Your task to perform on an android device: Go to display settings Image 0: 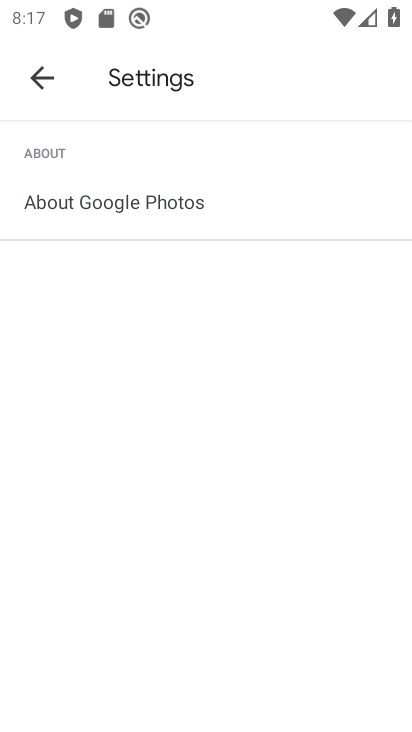
Step 0: click (35, 78)
Your task to perform on an android device: Go to display settings Image 1: 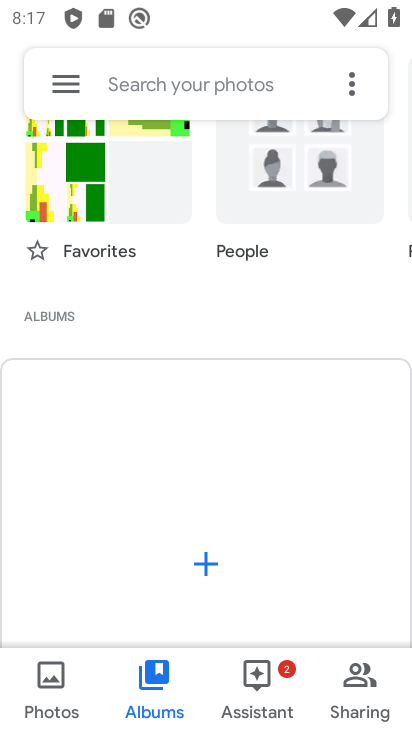
Step 1: press back button
Your task to perform on an android device: Go to display settings Image 2: 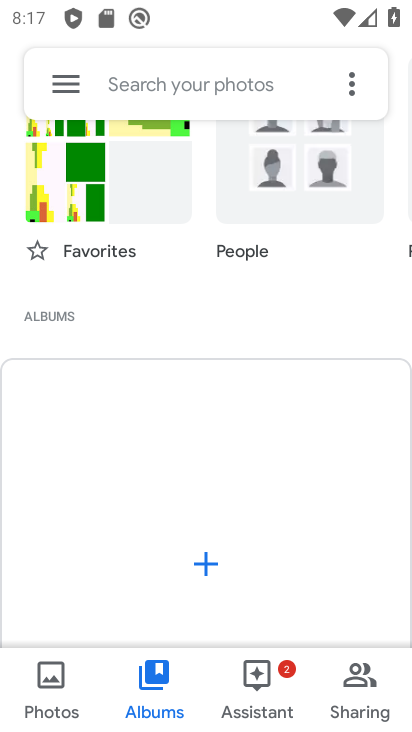
Step 2: press back button
Your task to perform on an android device: Go to display settings Image 3: 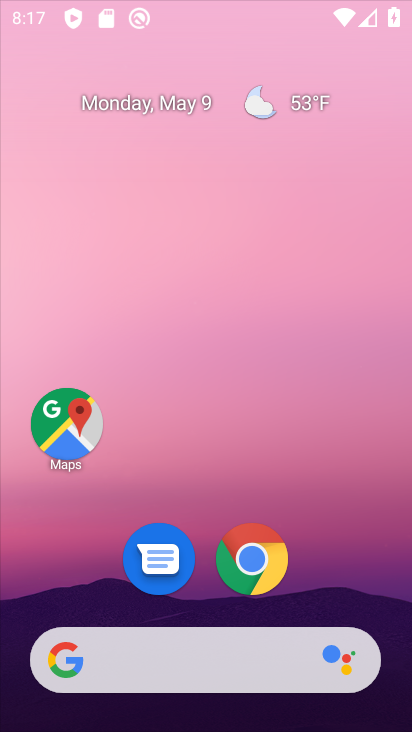
Step 3: press back button
Your task to perform on an android device: Go to display settings Image 4: 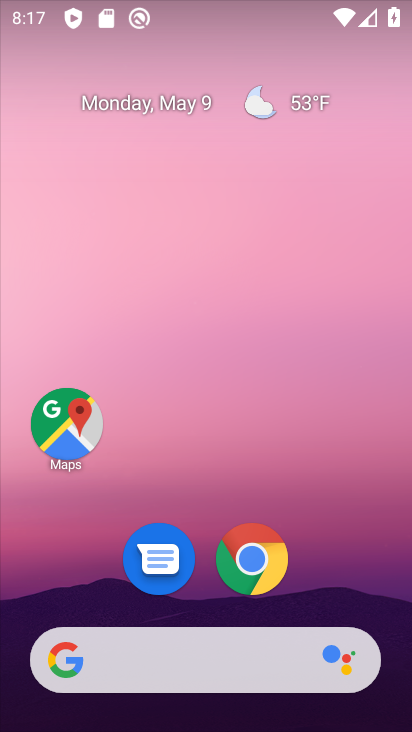
Step 4: drag from (330, 548) to (236, 27)
Your task to perform on an android device: Go to display settings Image 5: 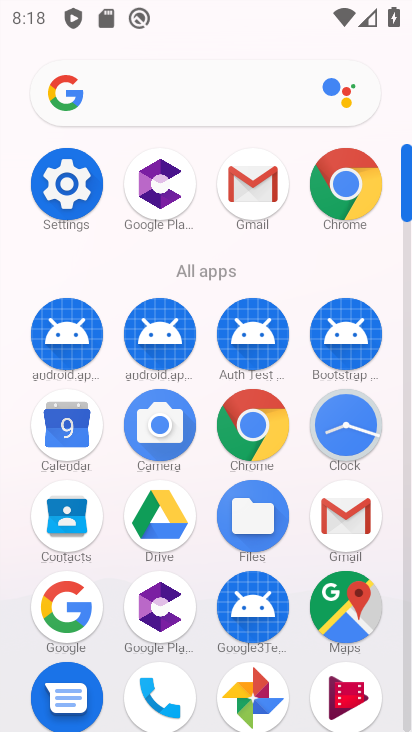
Step 5: click (65, 174)
Your task to perform on an android device: Go to display settings Image 6: 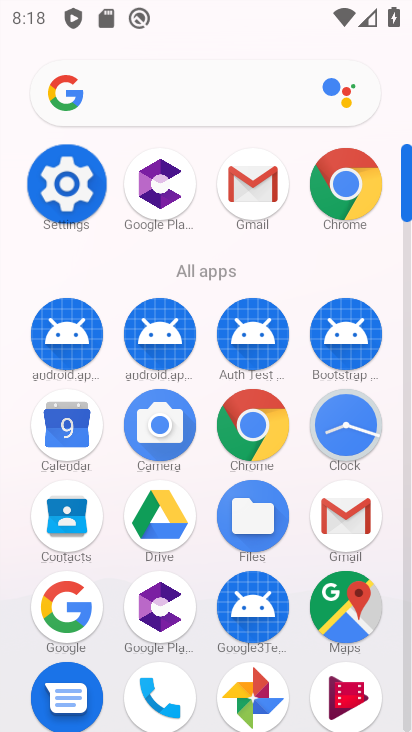
Step 6: click (66, 176)
Your task to perform on an android device: Go to display settings Image 7: 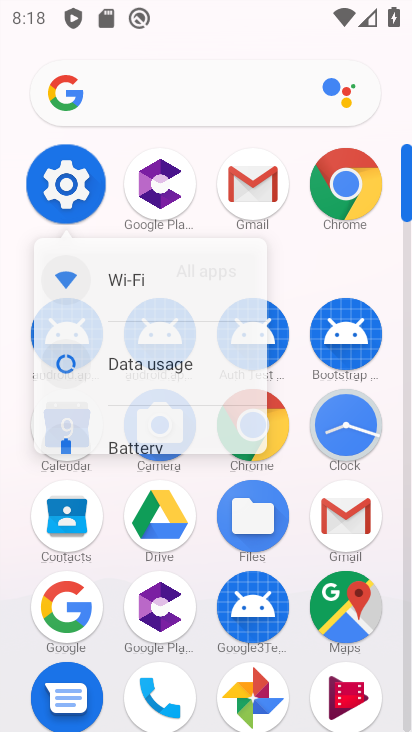
Step 7: click (66, 176)
Your task to perform on an android device: Go to display settings Image 8: 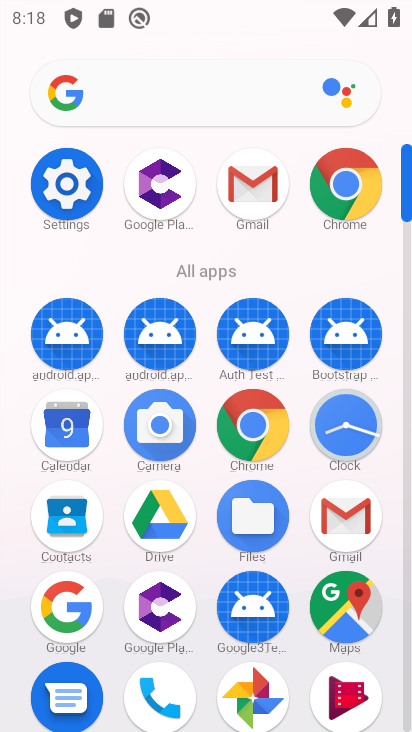
Step 8: click (66, 176)
Your task to perform on an android device: Go to display settings Image 9: 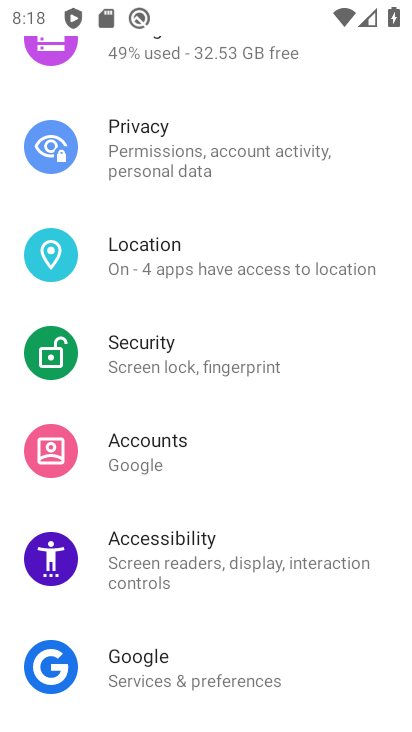
Step 9: drag from (127, 248) to (252, 582)
Your task to perform on an android device: Go to display settings Image 10: 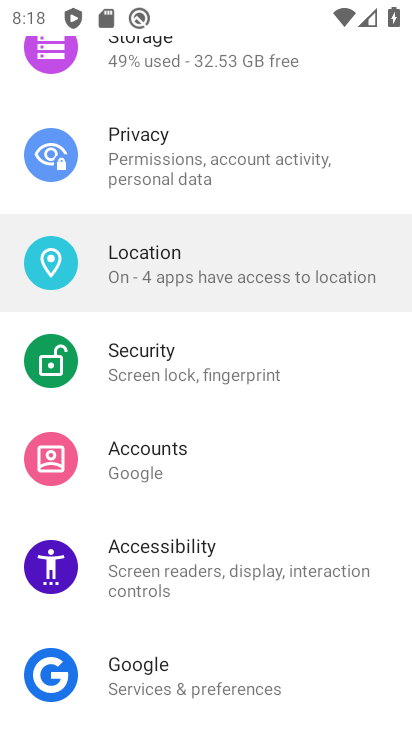
Step 10: drag from (197, 199) to (298, 463)
Your task to perform on an android device: Go to display settings Image 11: 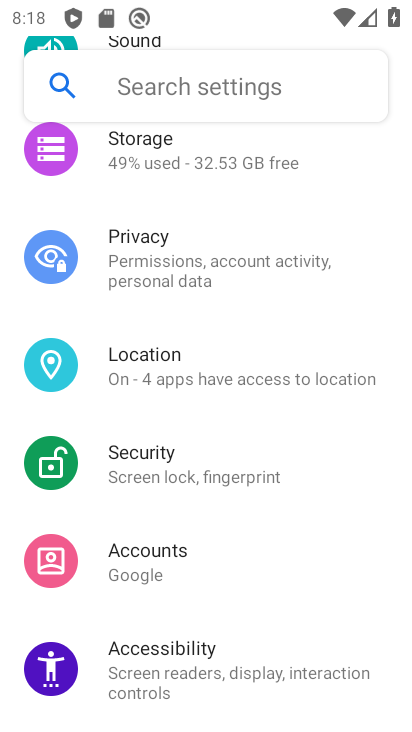
Step 11: drag from (261, 218) to (309, 498)
Your task to perform on an android device: Go to display settings Image 12: 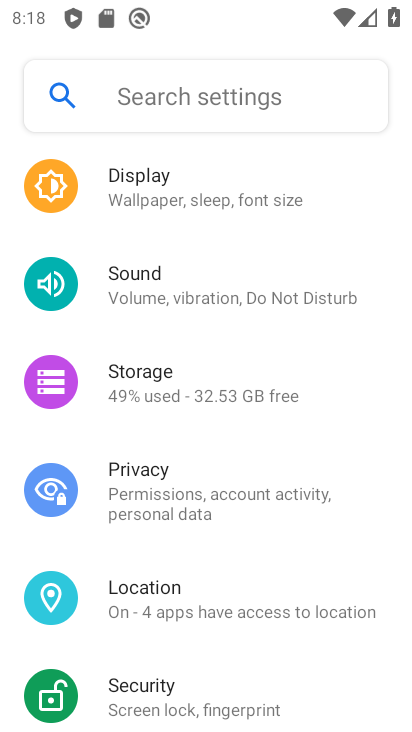
Step 12: drag from (202, 204) to (259, 563)
Your task to perform on an android device: Go to display settings Image 13: 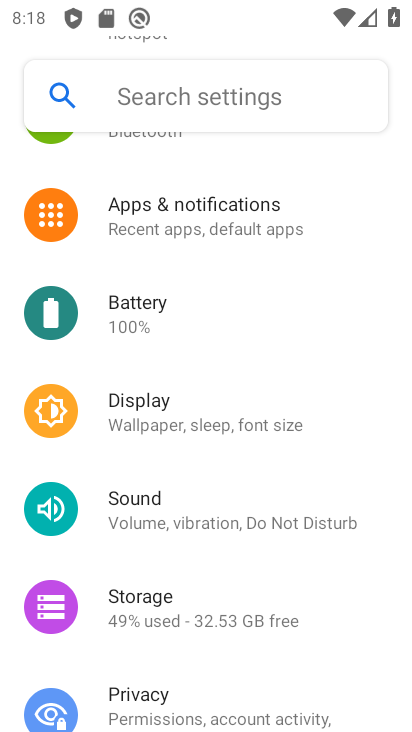
Step 13: click (153, 410)
Your task to perform on an android device: Go to display settings Image 14: 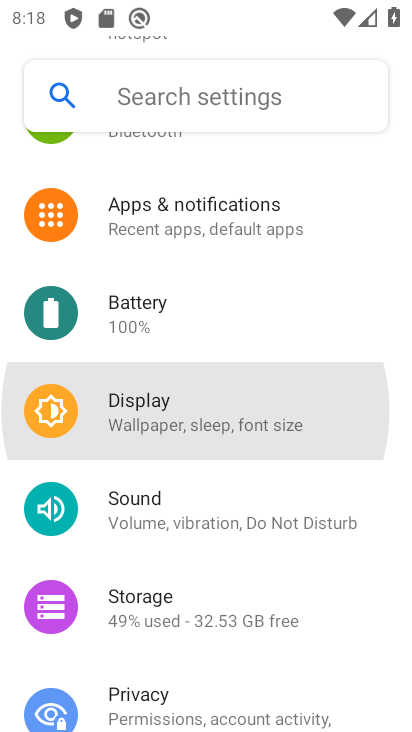
Step 14: click (156, 419)
Your task to perform on an android device: Go to display settings Image 15: 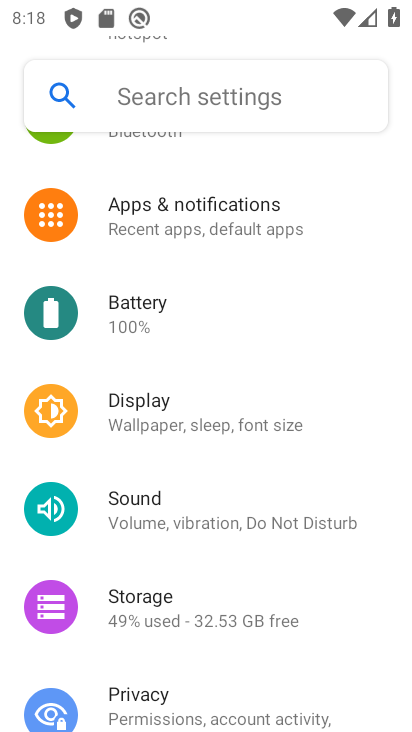
Step 15: click (157, 426)
Your task to perform on an android device: Go to display settings Image 16: 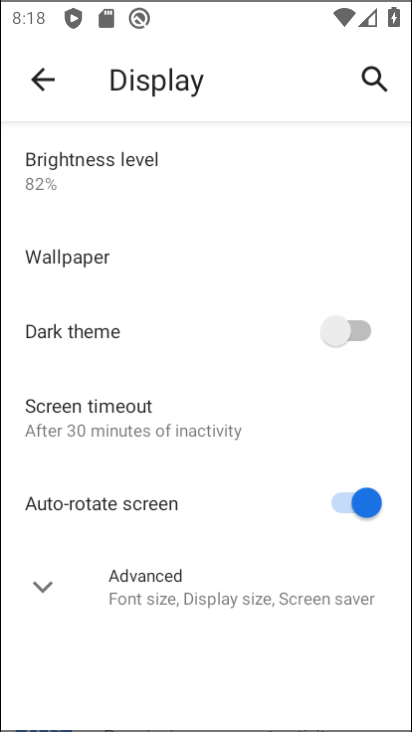
Step 16: click (156, 425)
Your task to perform on an android device: Go to display settings Image 17: 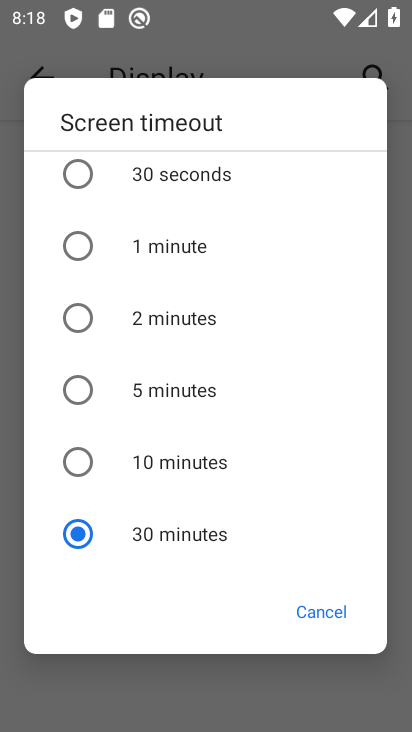
Step 17: click (320, 595)
Your task to perform on an android device: Go to display settings Image 18: 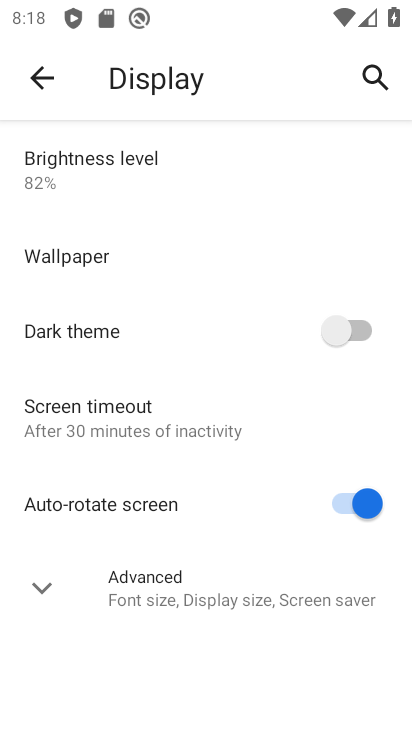
Step 18: click (44, 73)
Your task to perform on an android device: Go to display settings Image 19: 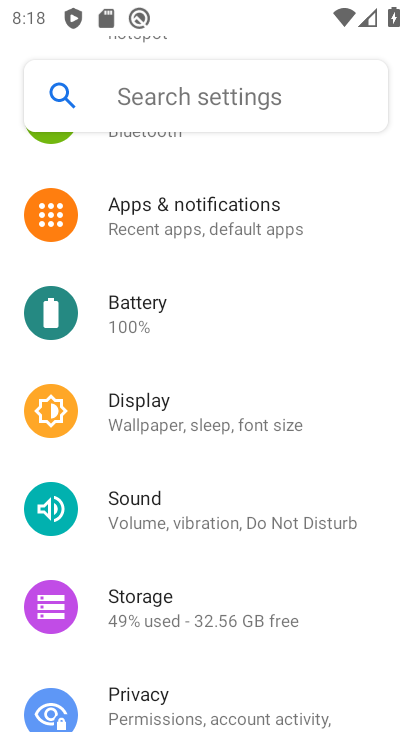
Step 19: click (140, 417)
Your task to perform on an android device: Go to display settings Image 20: 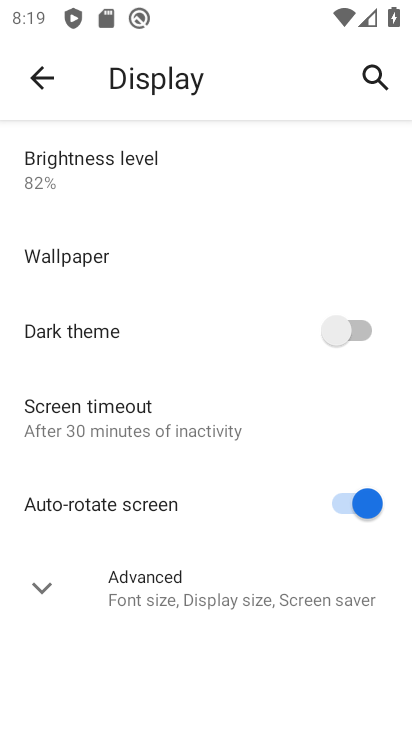
Step 20: task complete